Your task to perform on an android device: Go to sound settings Image 0: 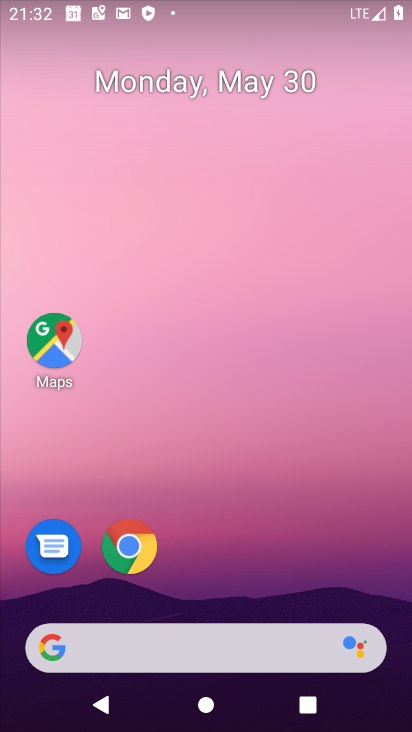
Step 0: drag from (290, 570) to (293, 131)
Your task to perform on an android device: Go to sound settings Image 1: 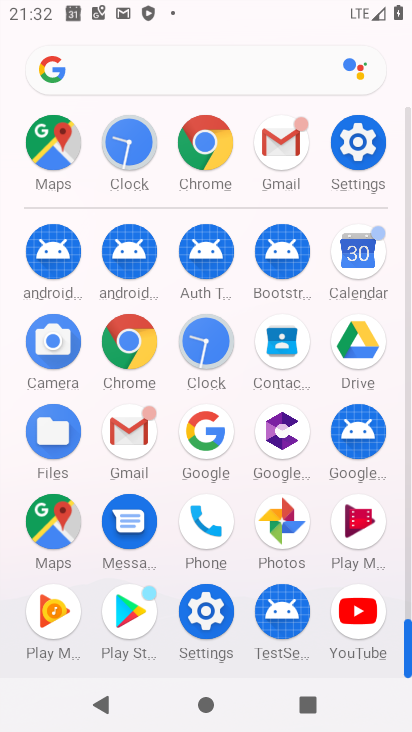
Step 1: click (201, 630)
Your task to perform on an android device: Go to sound settings Image 2: 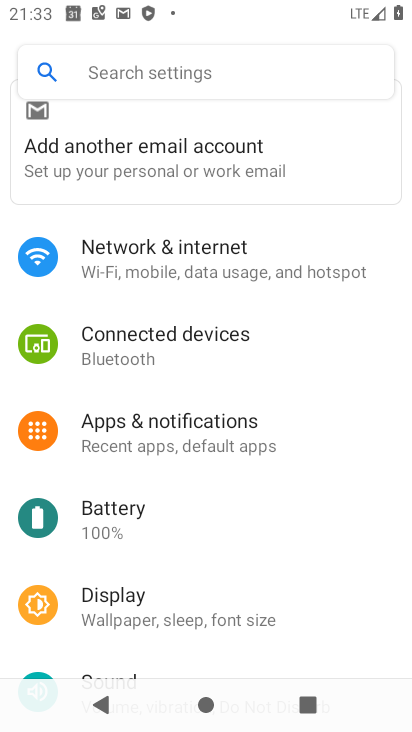
Step 2: click (261, 271)
Your task to perform on an android device: Go to sound settings Image 3: 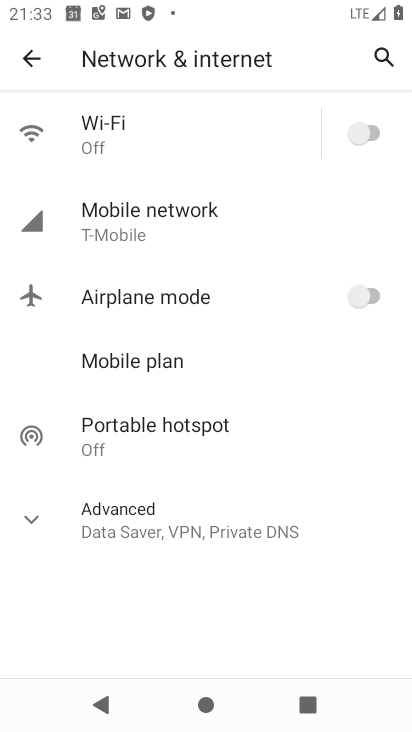
Step 3: click (15, 58)
Your task to perform on an android device: Go to sound settings Image 4: 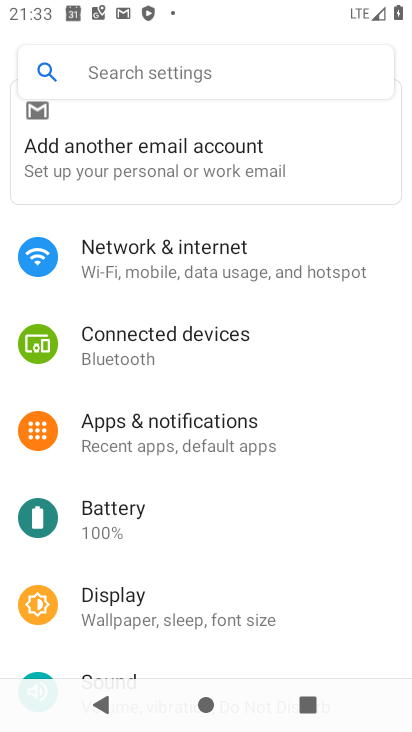
Step 4: drag from (227, 547) to (228, 289)
Your task to perform on an android device: Go to sound settings Image 5: 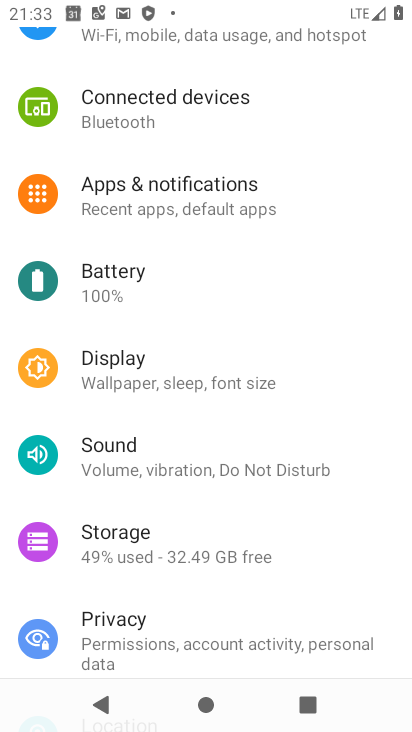
Step 5: click (189, 466)
Your task to perform on an android device: Go to sound settings Image 6: 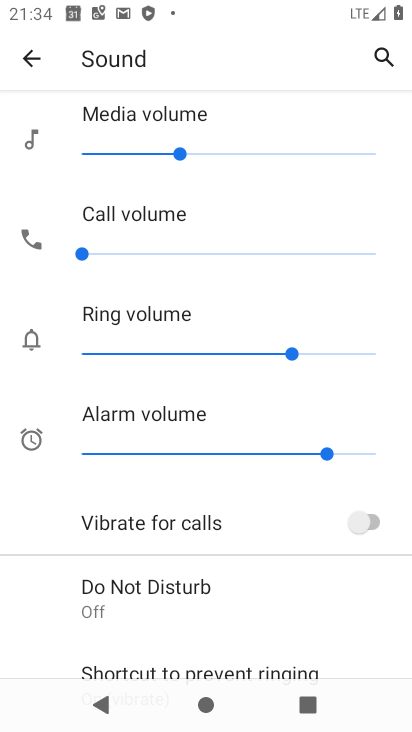
Step 6: task complete